Your task to perform on an android device: Go to accessibility settings Image 0: 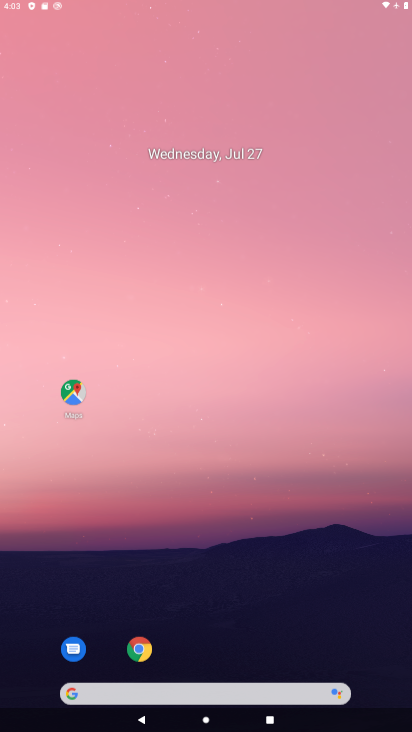
Step 0: drag from (240, 594) to (204, 207)
Your task to perform on an android device: Go to accessibility settings Image 1: 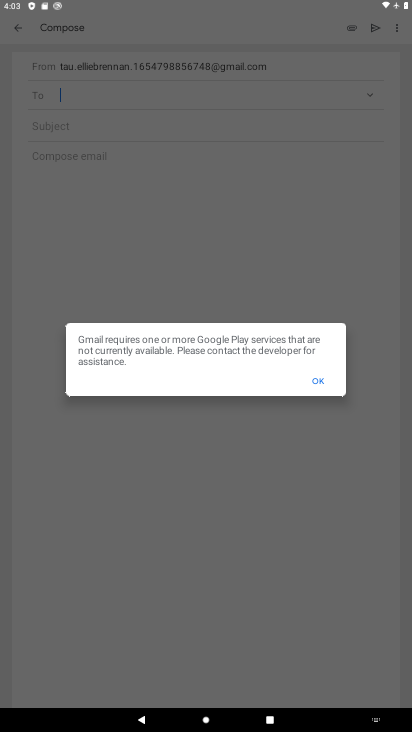
Step 1: press home button
Your task to perform on an android device: Go to accessibility settings Image 2: 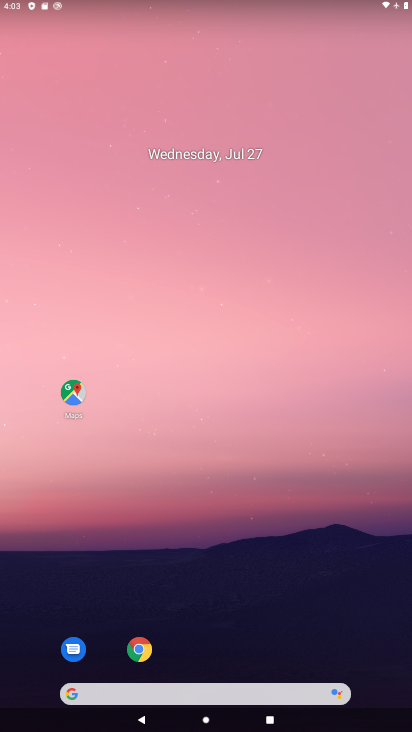
Step 2: drag from (250, 628) to (244, 80)
Your task to perform on an android device: Go to accessibility settings Image 3: 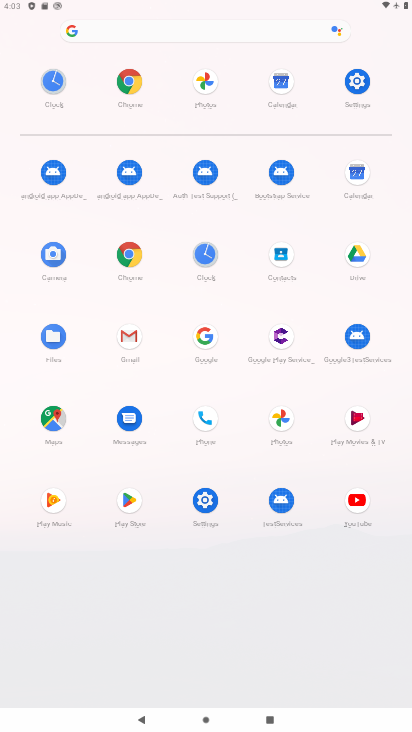
Step 3: click (352, 80)
Your task to perform on an android device: Go to accessibility settings Image 4: 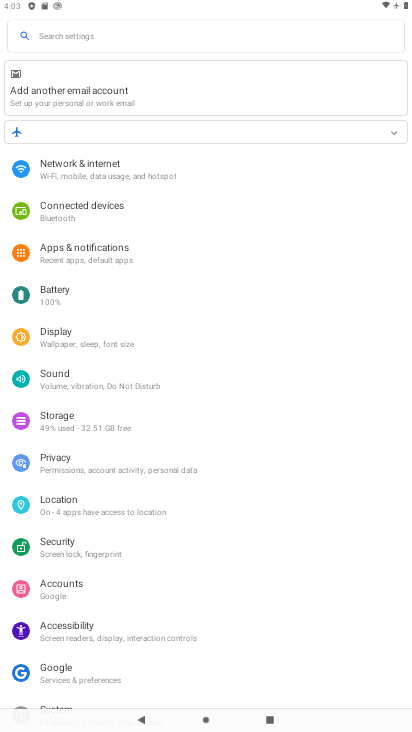
Step 4: click (122, 652)
Your task to perform on an android device: Go to accessibility settings Image 5: 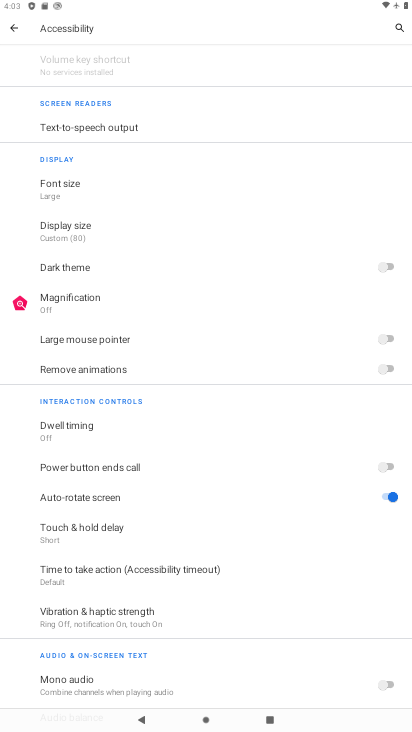
Step 5: task complete